Your task to perform on an android device: uninstall "Grab" Image 0: 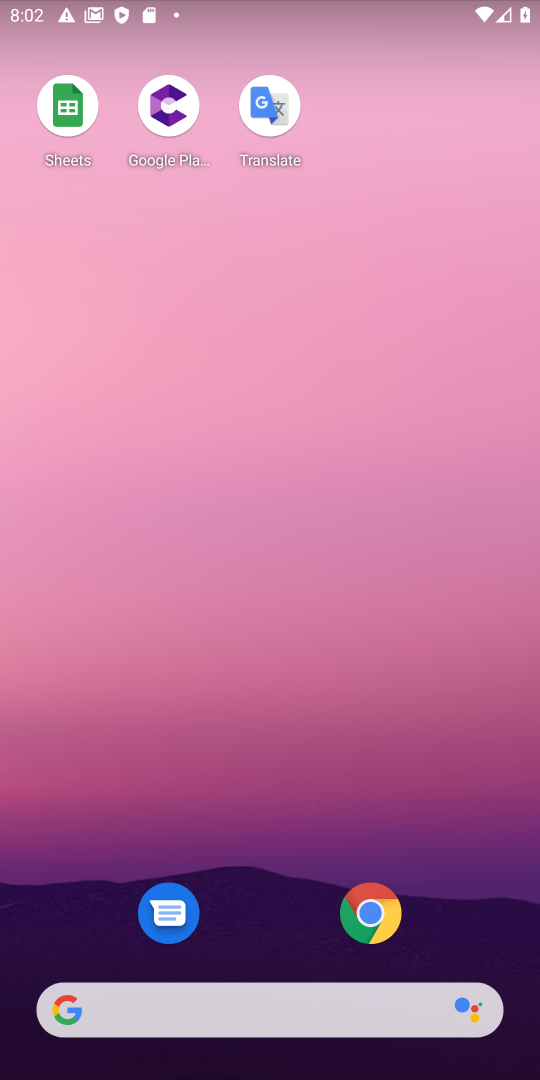
Step 0: drag from (294, 985) to (258, 185)
Your task to perform on an android device: uninstall "Grab" Image 1: 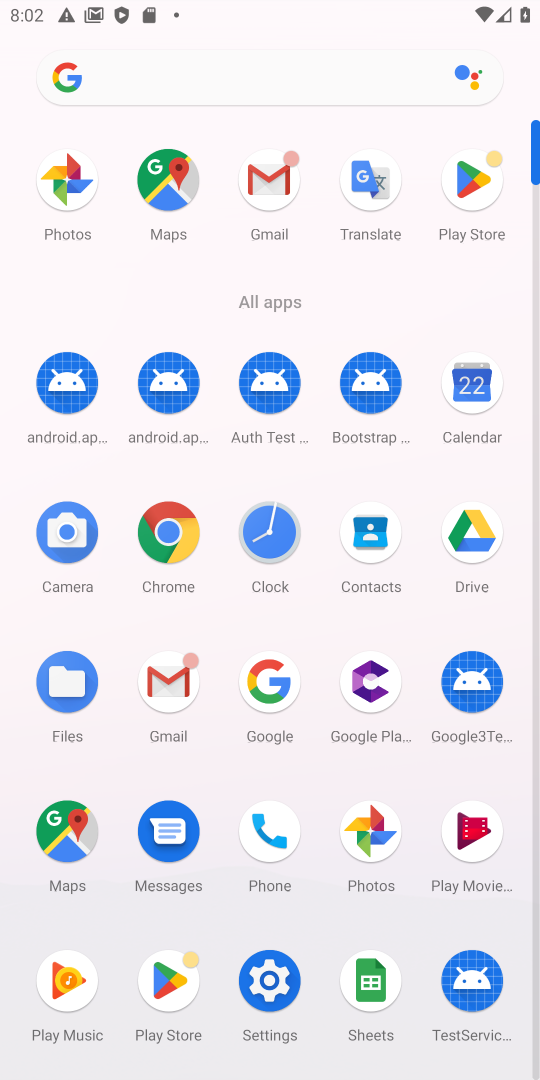
Step 1: click (471, 165)
Your task to perform on an android device: uninstall "Grab" Image 2: 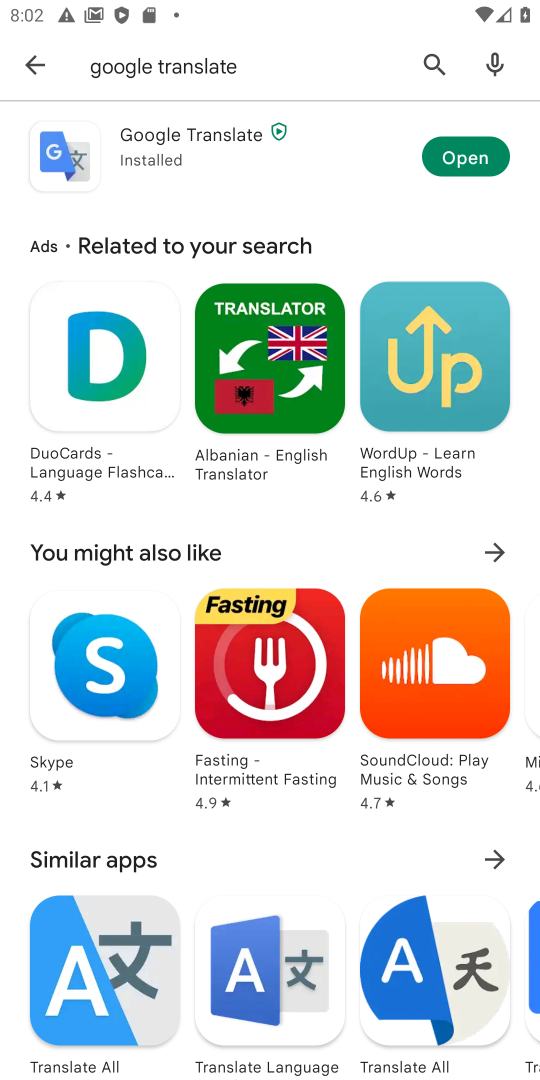
Step 2: click (418, 71)
Your task to perform on an android device: uninstall "Grab" Image 3: 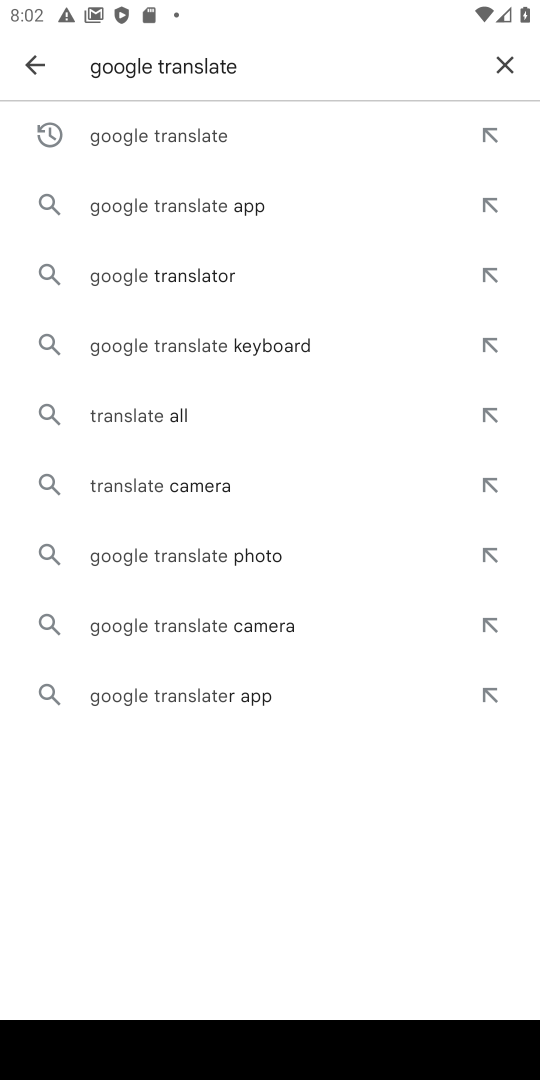
Step 3: click (505, 65)
Your task to perform on an android device: uninstall "Grab" Image 4: 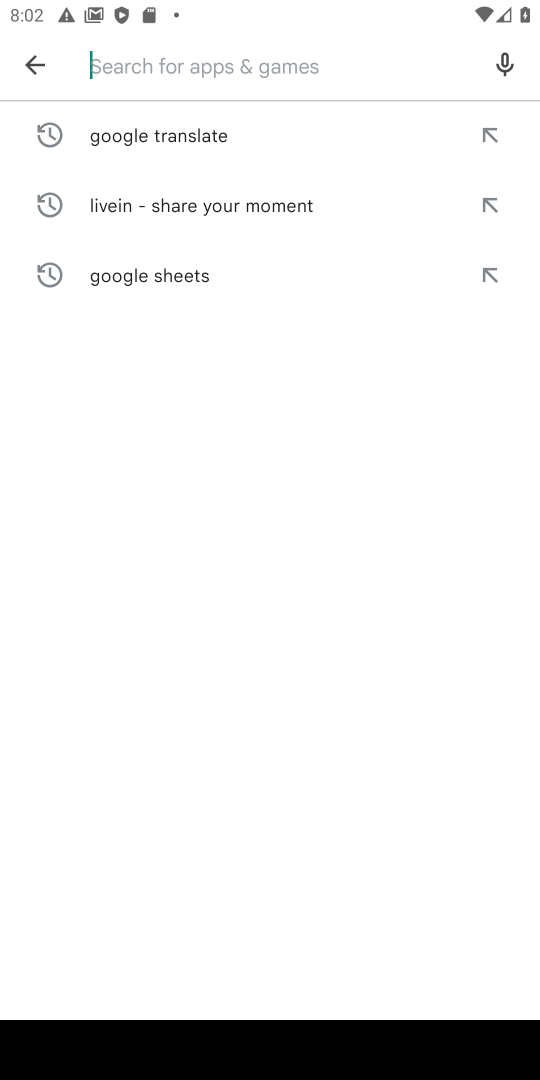
Step 4: type "grab"
Your task to perform on an android device: uninstall "Grab" Image 5: 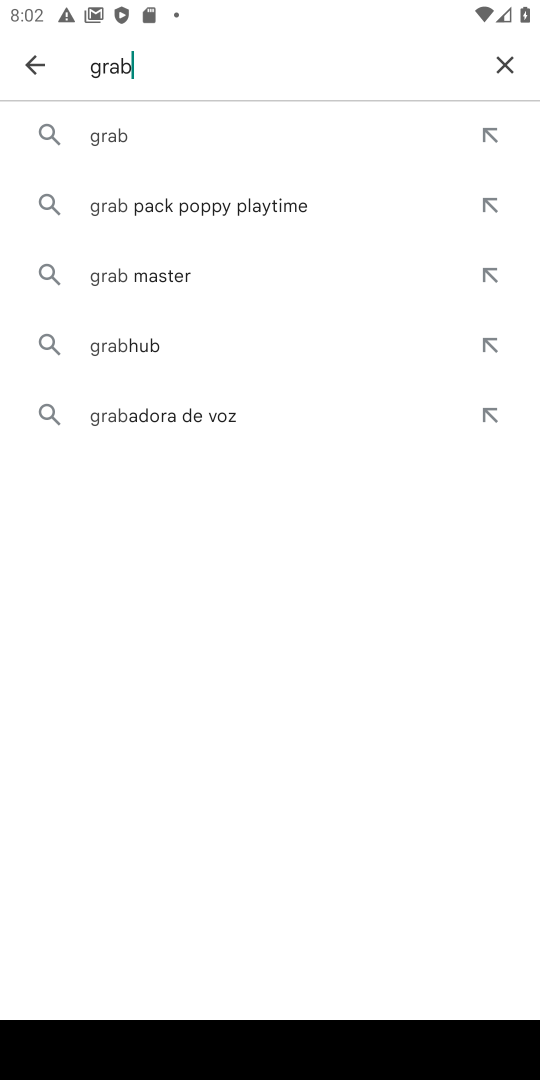
Step 5: click (104, 139)
Your task to perform on an android device: uninstall "Grab" Image 6: 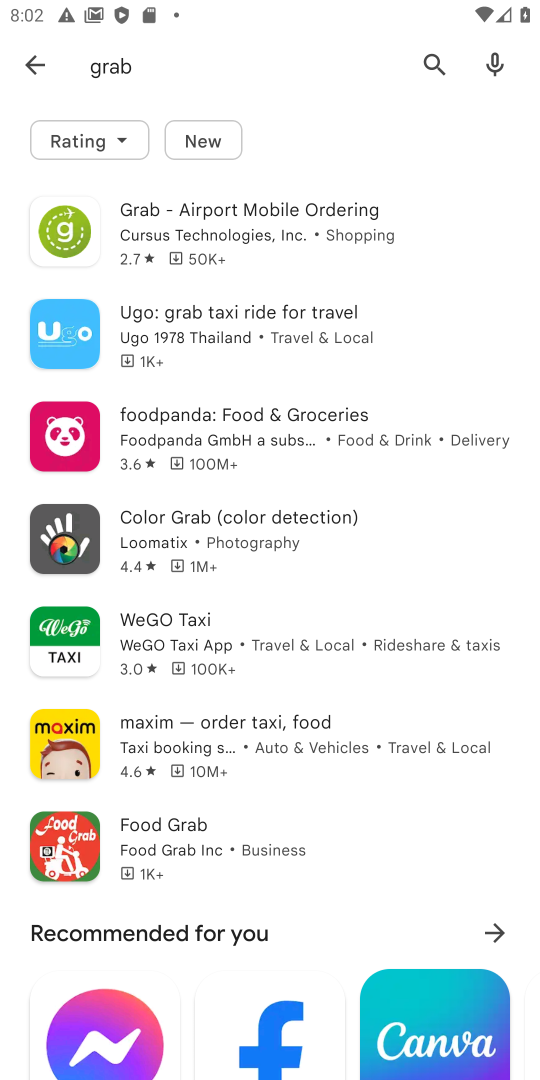
Step 6: click (214, 255)
Your task to perform on an android device: uninstall "Grab" Image 7: 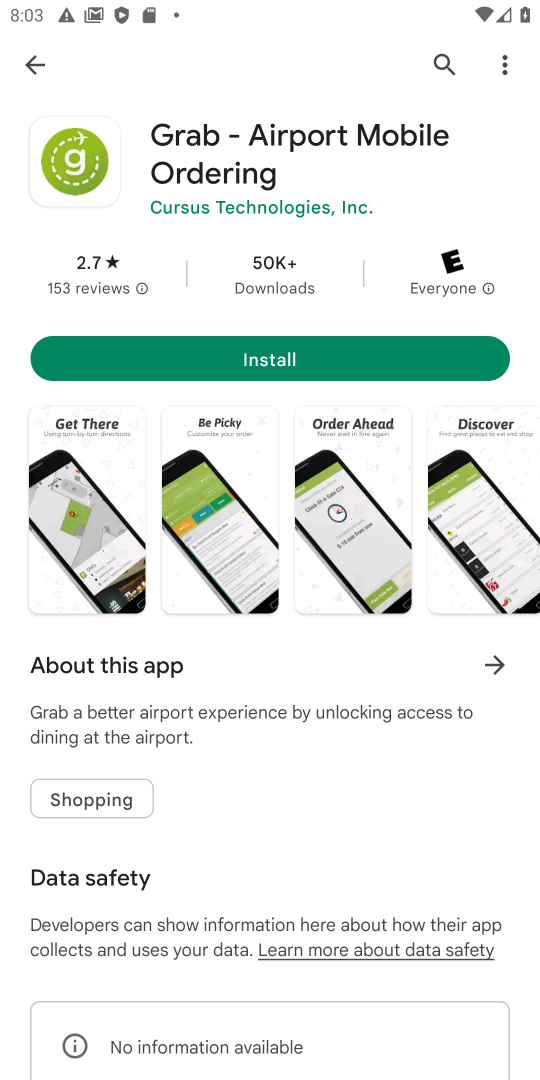
Step 7: task complete